Your task to perform on an android device: Open Google Chrome and open the bookmarks view Image 0: 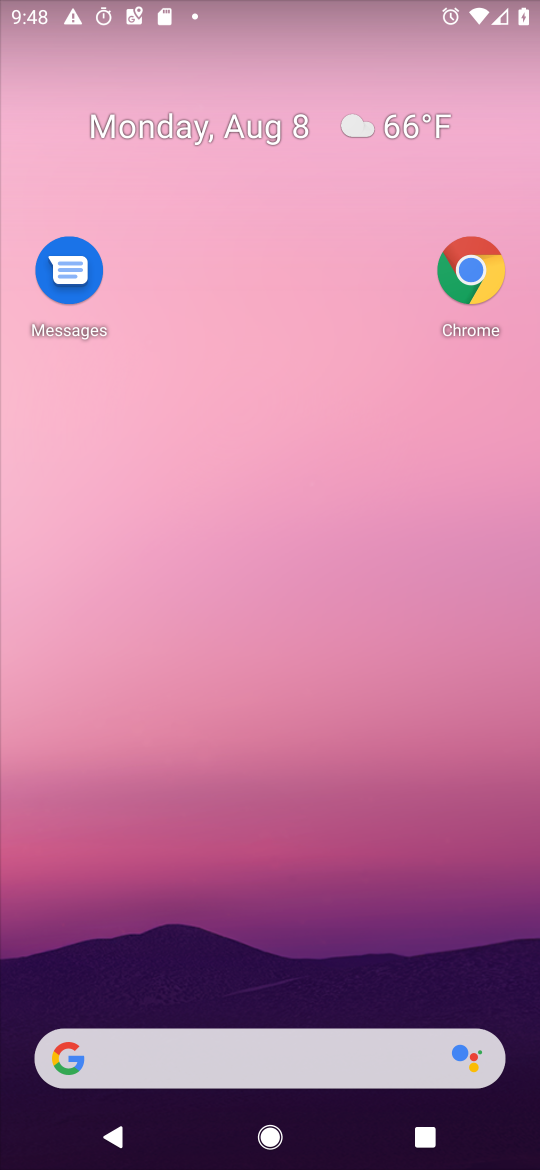
Step 0: drag from (323, 1026) to (309, 139)
Your task to perform on an android device: Open Google Chrome and open the bookmarks view Image 1: 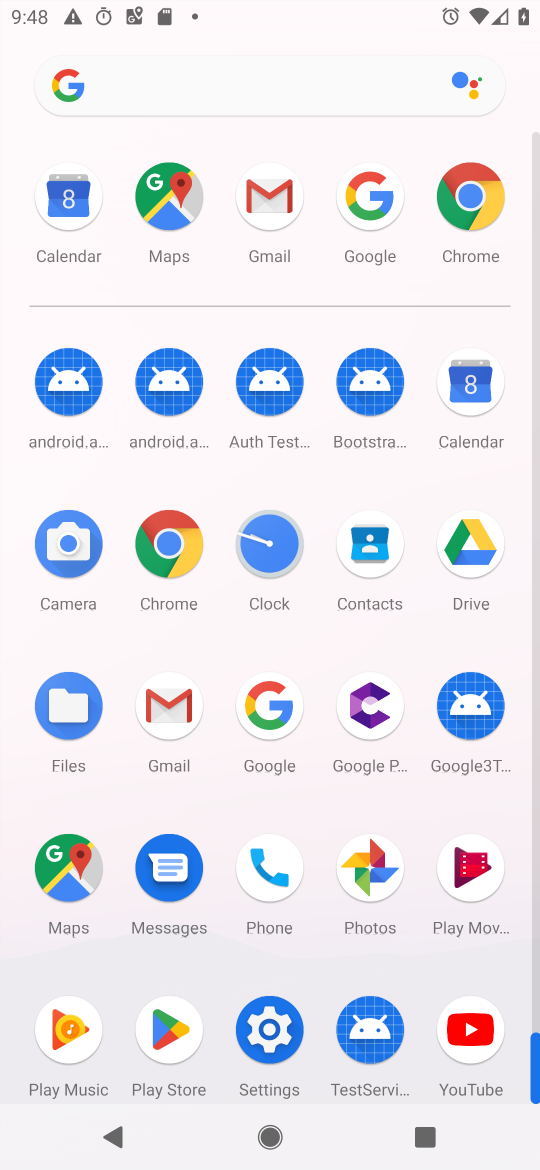
Step 1: click (469, 180)
Your task to perform on an android device: Open Google Chrome and open the bookmarks view Image 2: 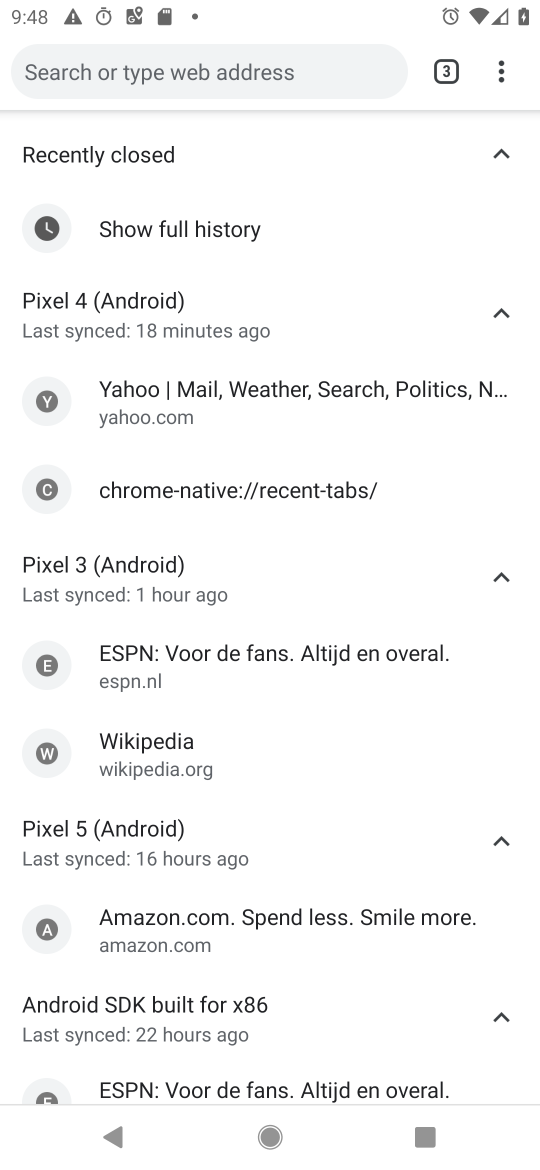
Step 2: task complete